Your task to perform on an android device: Clear the shopping cart on bestbuy. Image 0: 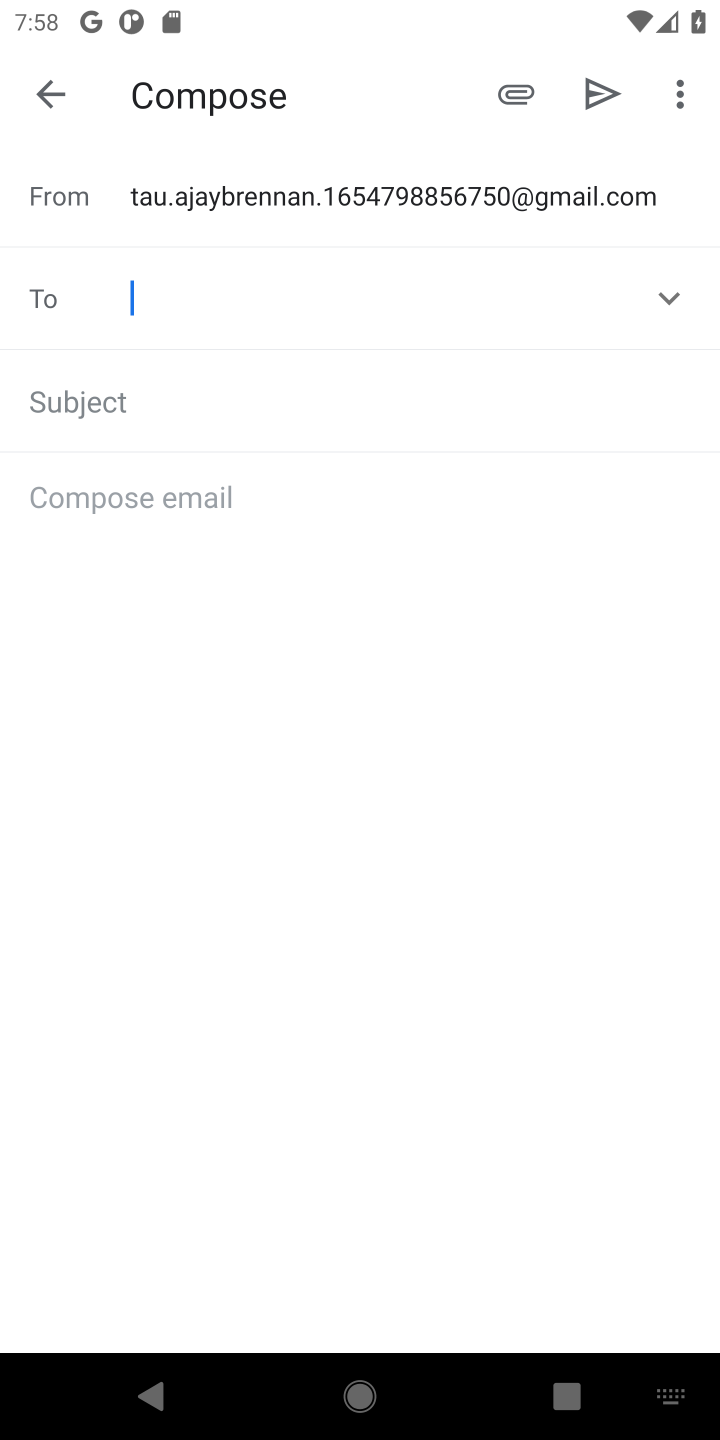
Step 0: press home button
Your task to perform on an android device: Clear the shopping cart on bestbuy. Image 1: 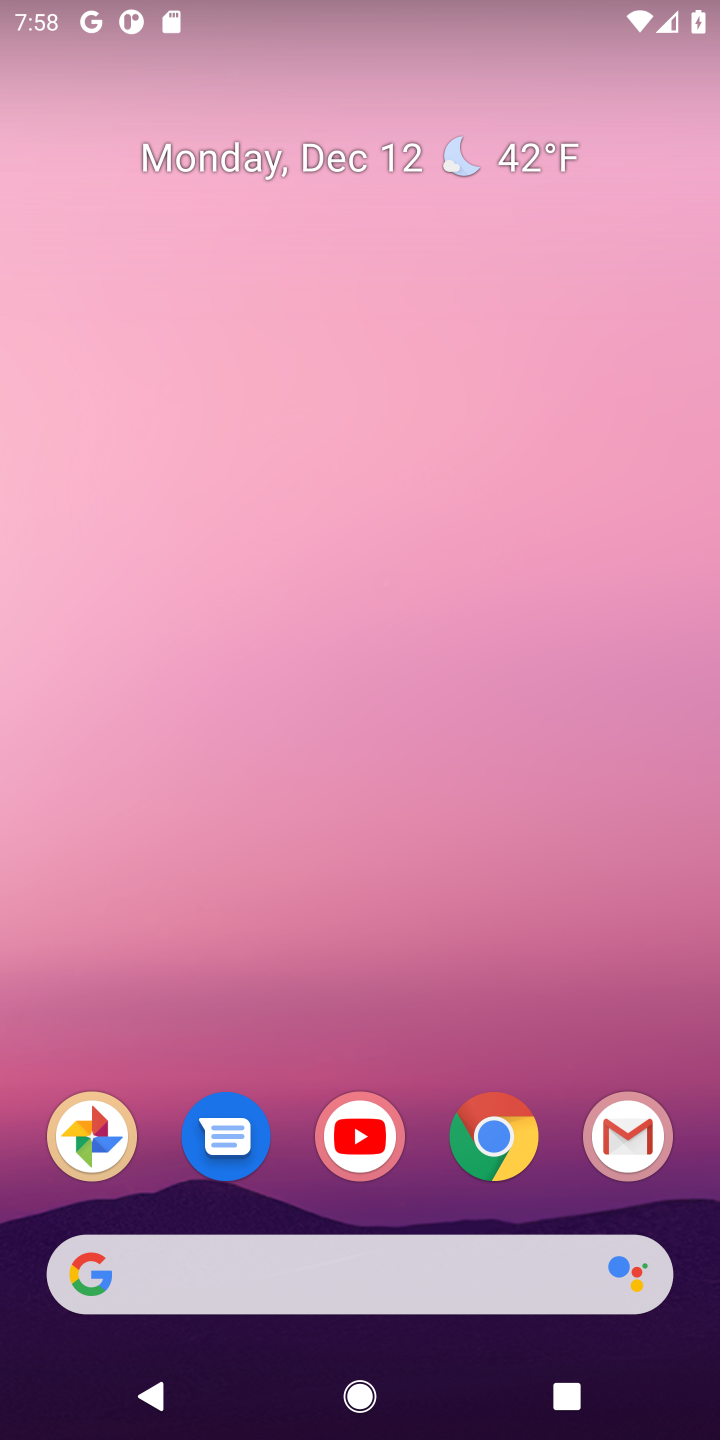
Step 1: click (498, 1140)
Your task to perform on an android device: Clear the shopping cart on bestbuy. Image 2: 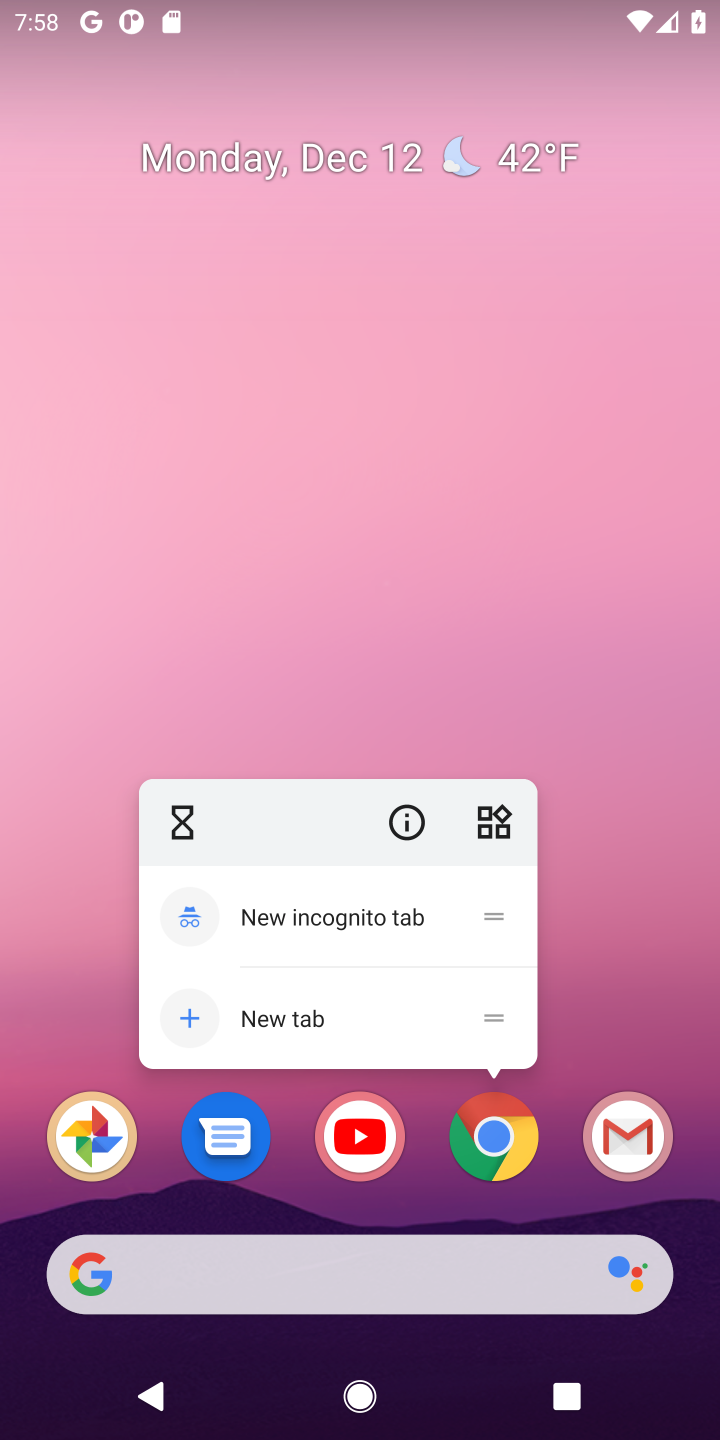
Step 2: click (498, 1140)
Your task to perform on an android device: Clear the shopping cart on bestbuy. Image 3: 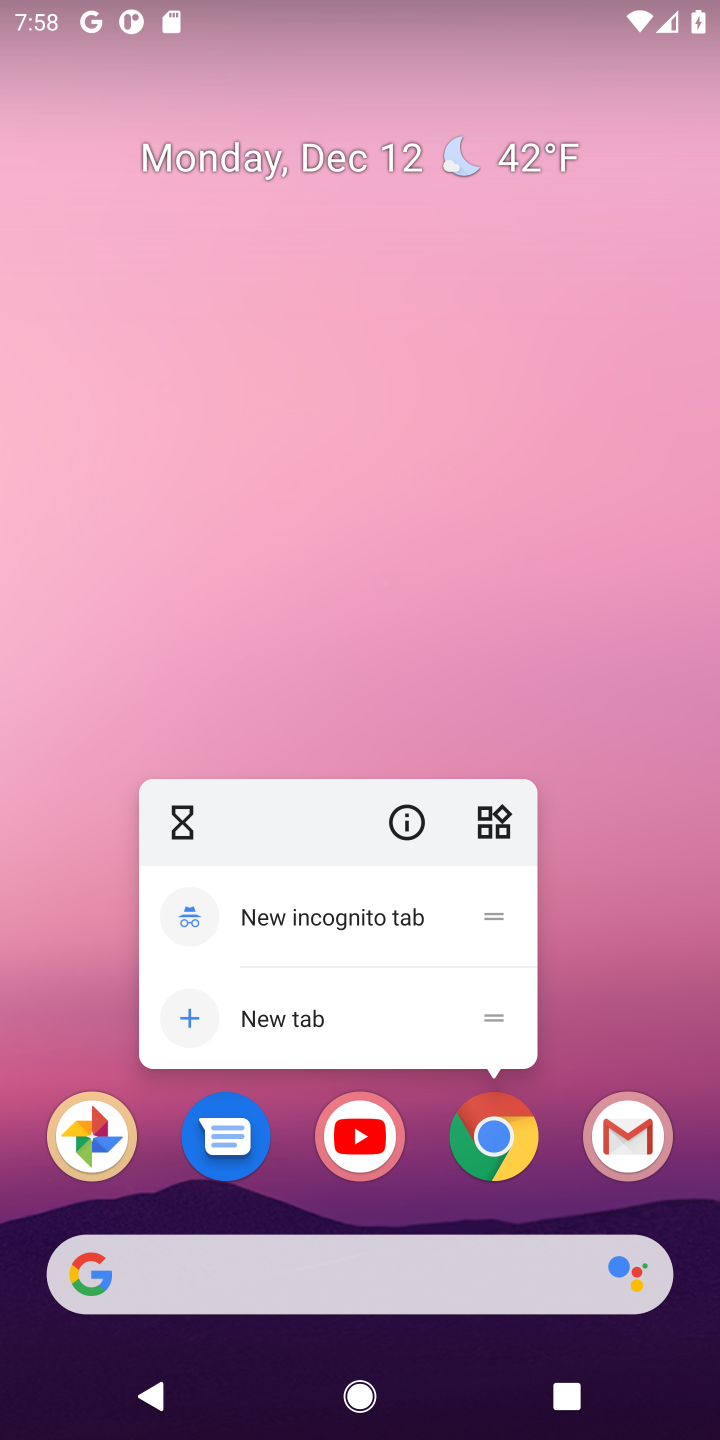
Step 3: click (498, 1142)
Your task to perform on an android device: Clear the shopping cart on bestbuy. Image 4: 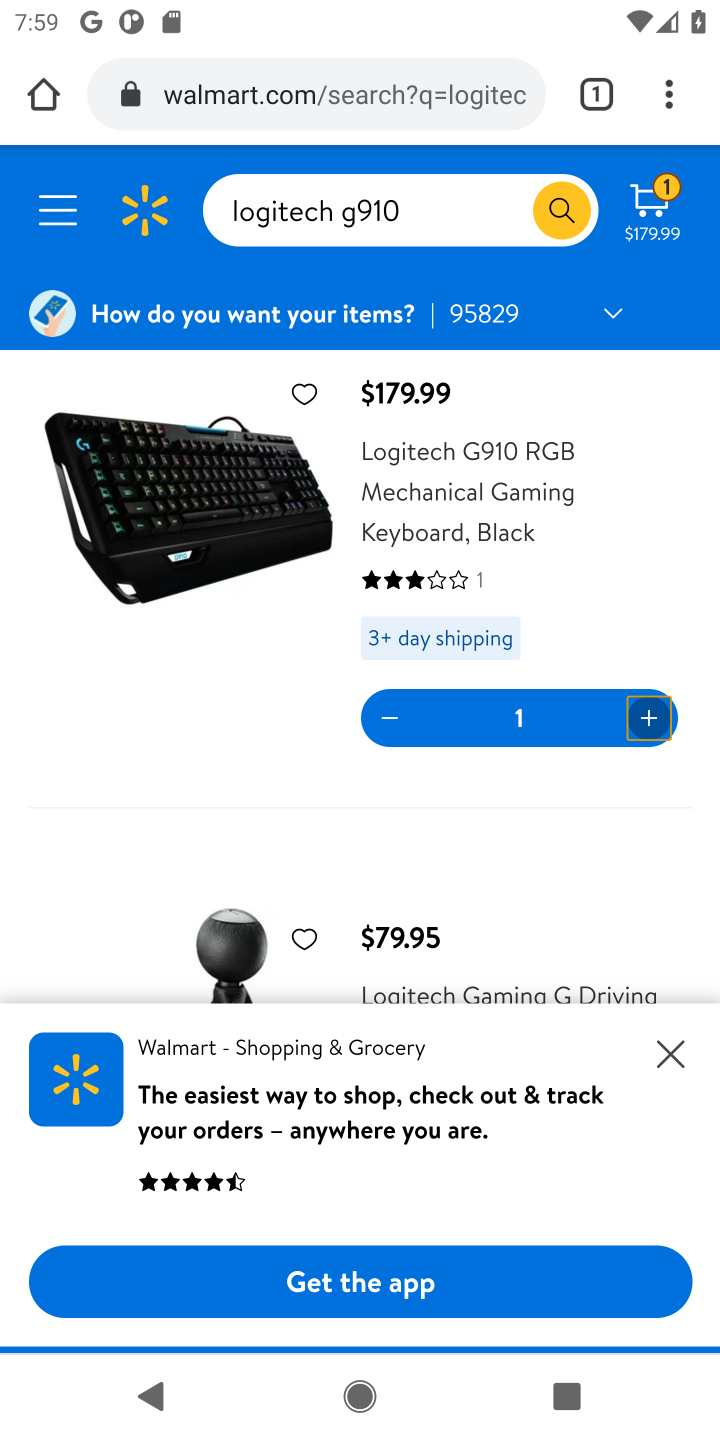
Step 4: click (242, 88)
Your task to perform on an android device: Clear the shopping cart on bestbuy. Image 5: 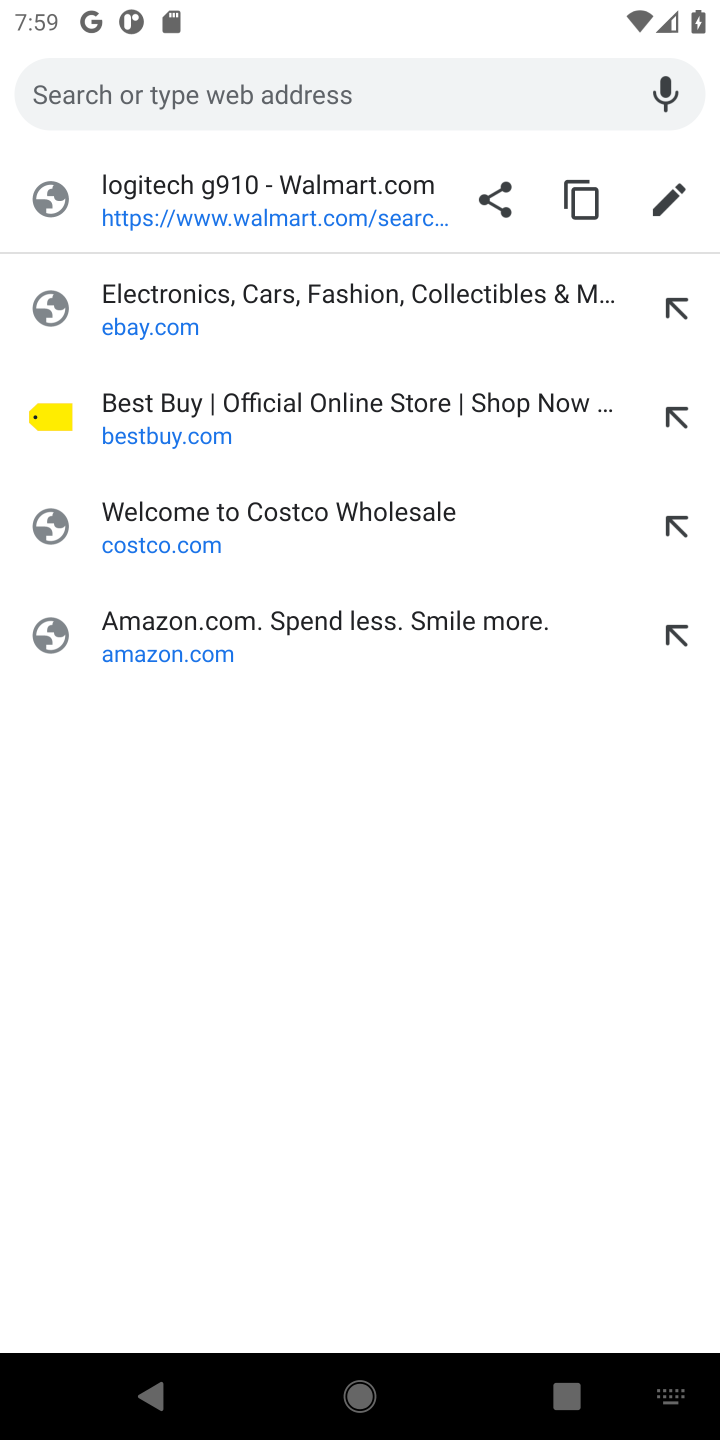
Step 5: click (147, 423)
Your task to perform on an android device: Clear the shopping cart on bestbuy. Image 6: 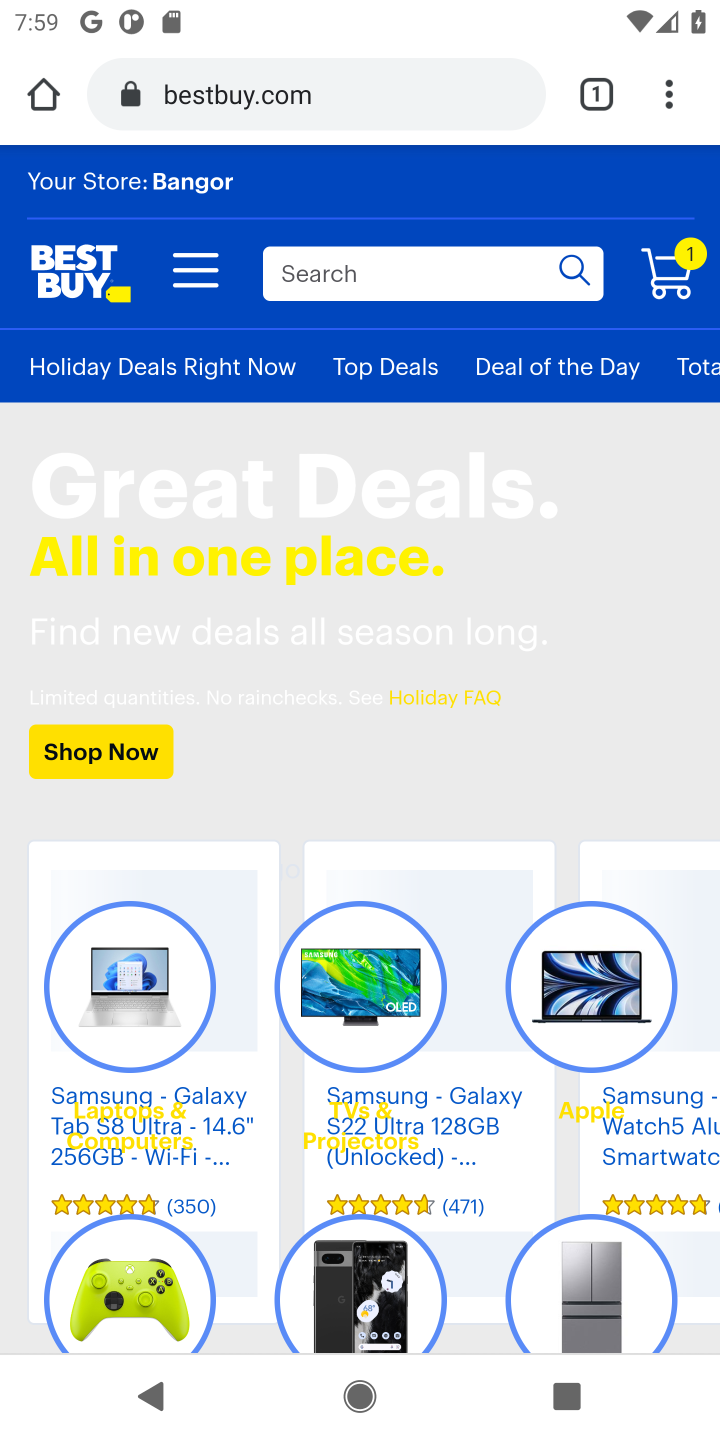
Step 6: click (666, 284)
Your task to perform on an android device: Clear the shopping cart on bestbuy. Image 7: 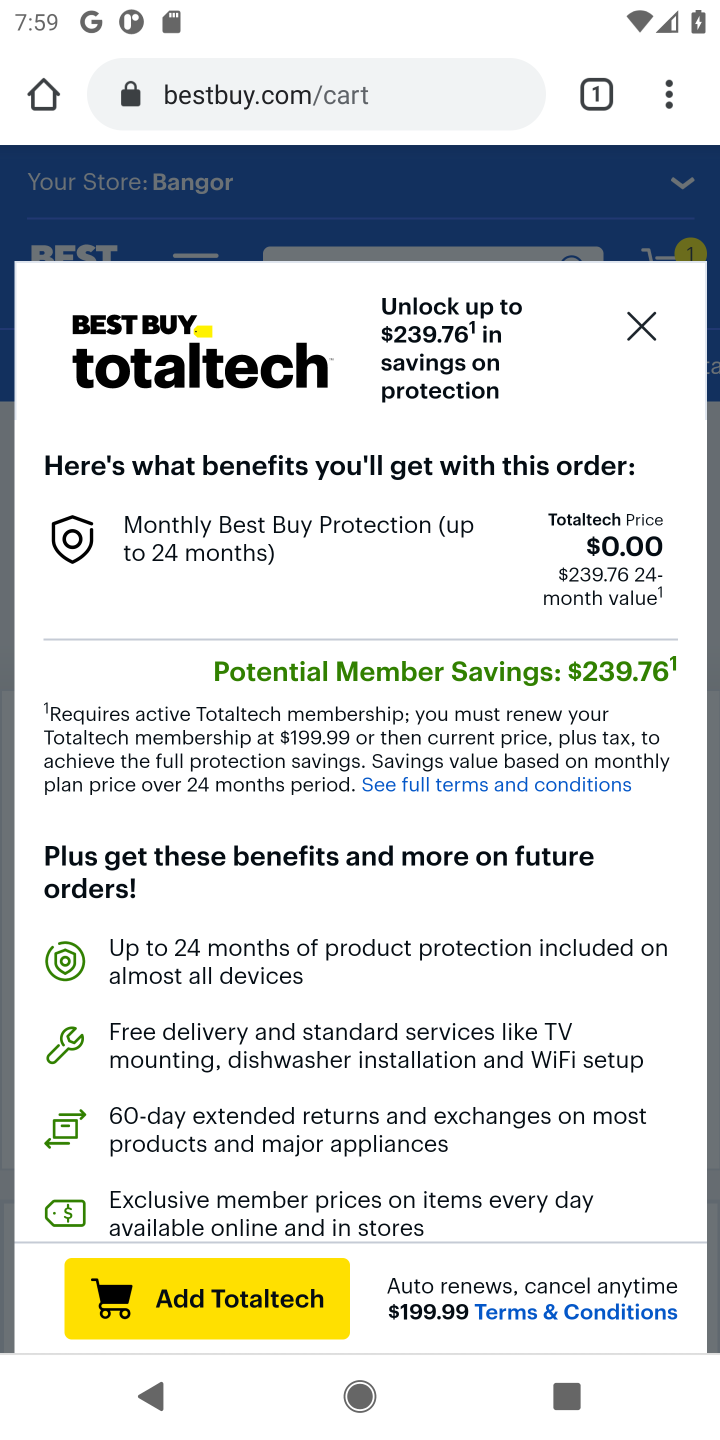
Step 7: click (640, 332)
Your task to perform on an android device: Clear the shopping cart on bestbuy. Image 8: 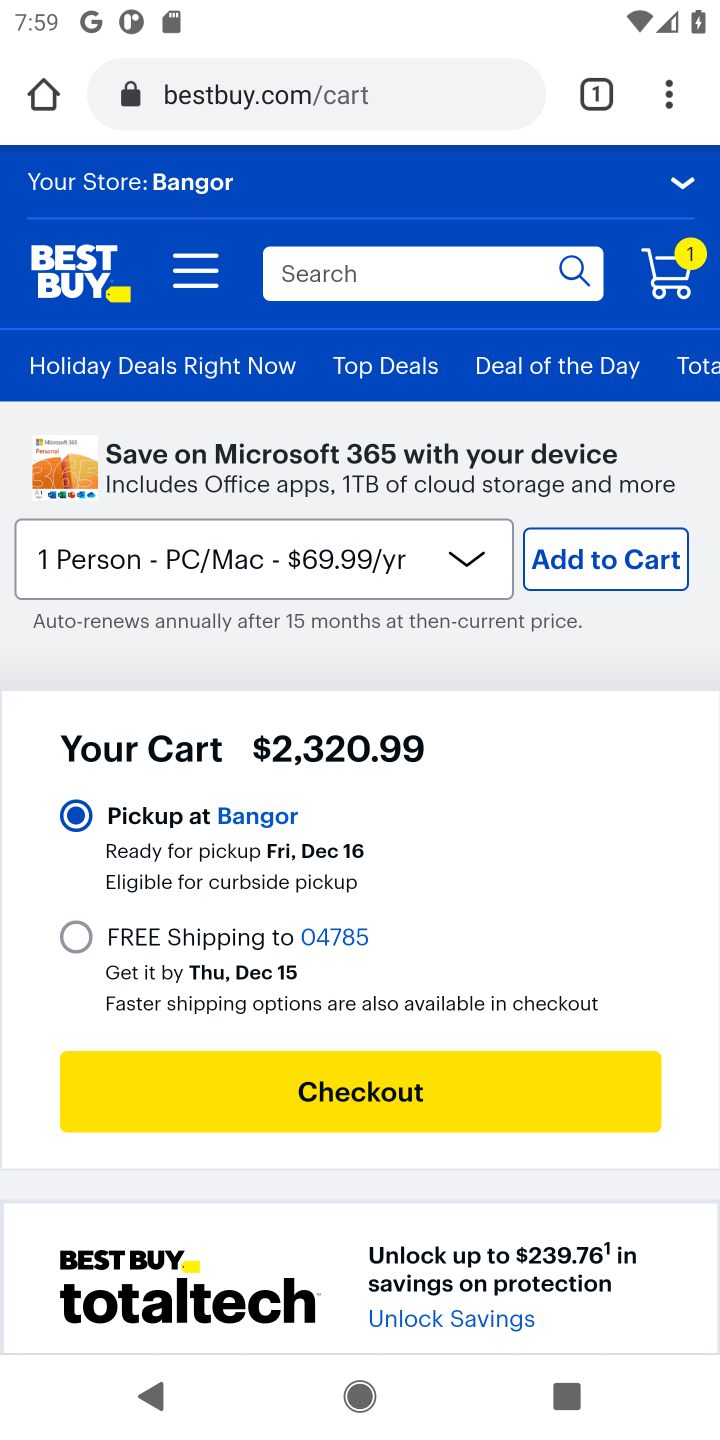
Step 8: drag from (275, 914) to (329, 304)
Your task to perform on an android device: Clear the shopping cart on bestbuy. Image 9: 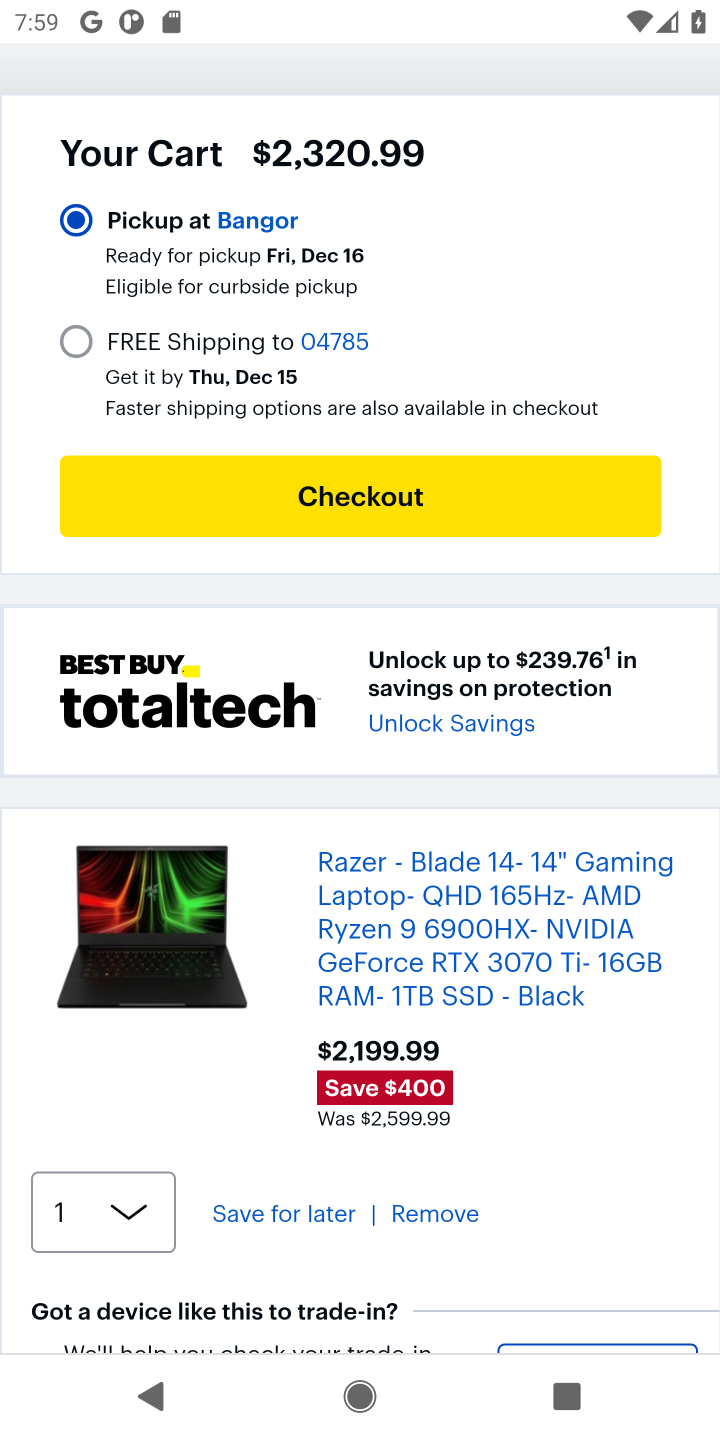
Step 9: click (444, 1218)
Your task to perform on an android device: Clear the shopping cart on bestbuy. Image 10: 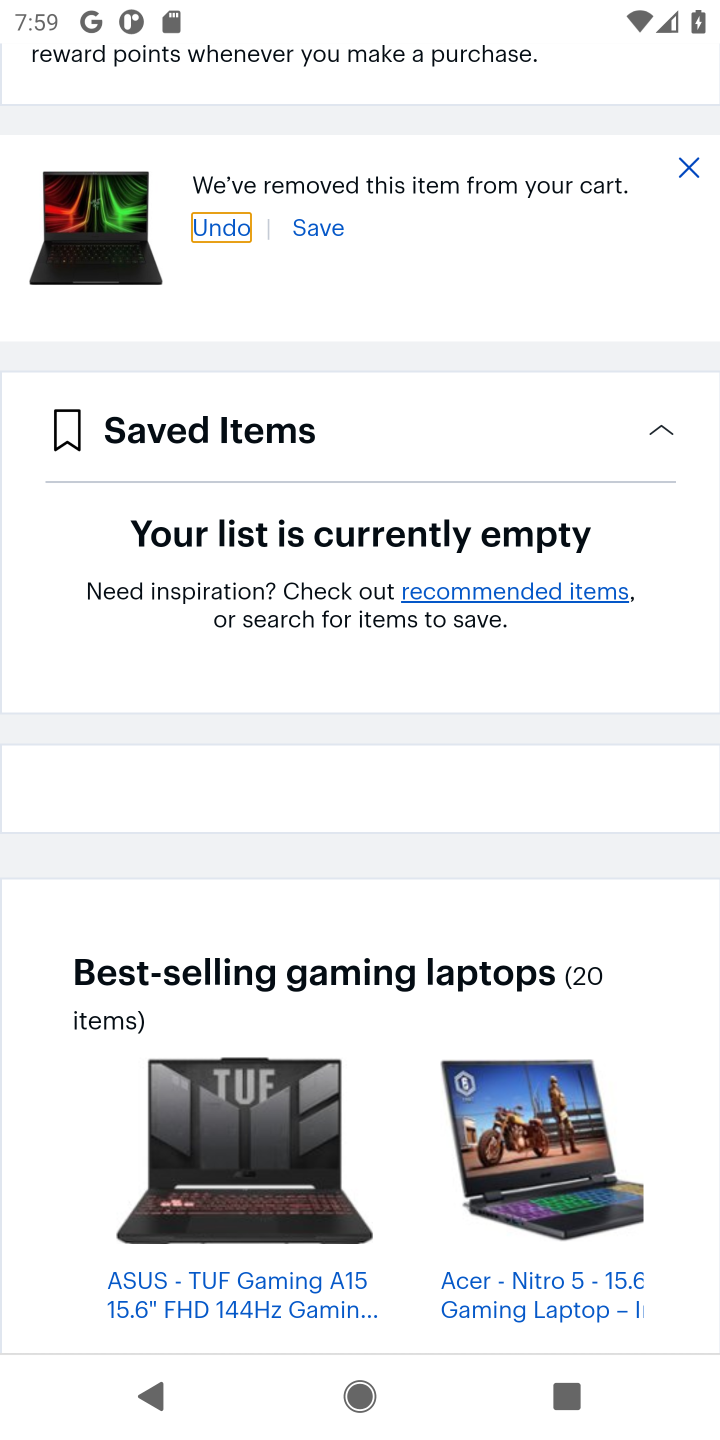
Step 10: task complete